Your task to perform on an android device: Turn off the flashlight Image 0: 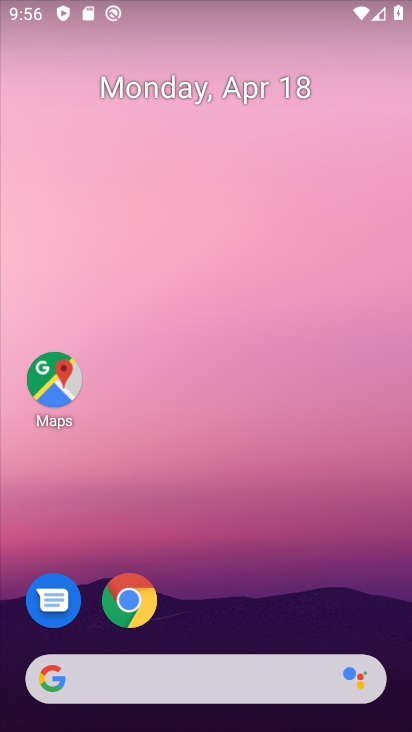
Step 0: drag from (235, 643) to (152, 0)
Your task to perform on an android device: Turn off the flashlight Image 1: 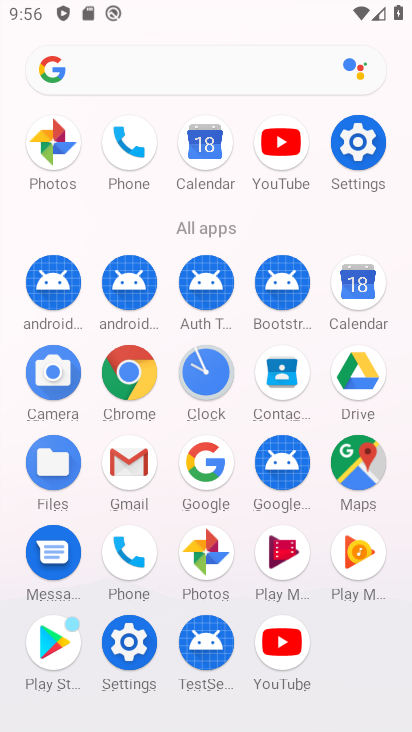
Step 1: click (346, 162)
Your task to perform on an android device: Turn off the flashlight Image 2: 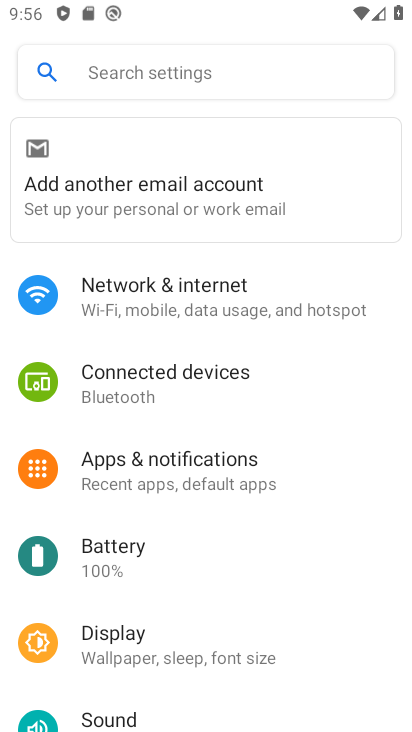
Step 2: click (187, 84)
Your task to perform on an android device: Turn off the flashlight Image 3: 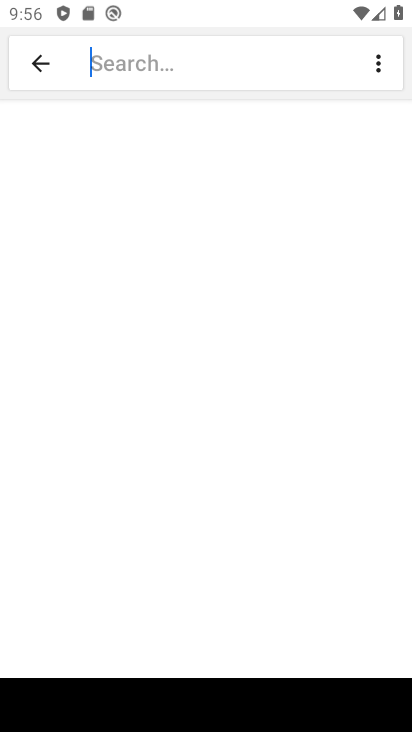
Step 3: type "flashlight"
Your task to perform on an android device: Turn off the flashlight Image 4: 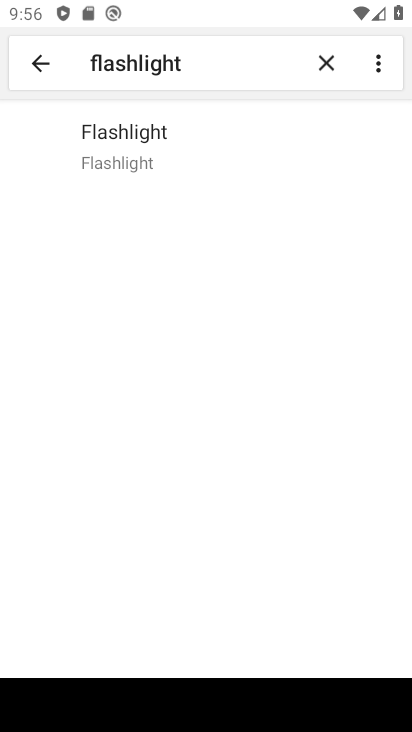
Step 4: task complete